Your task to perform on an android device: turn on translation in the chrome app Image 0: 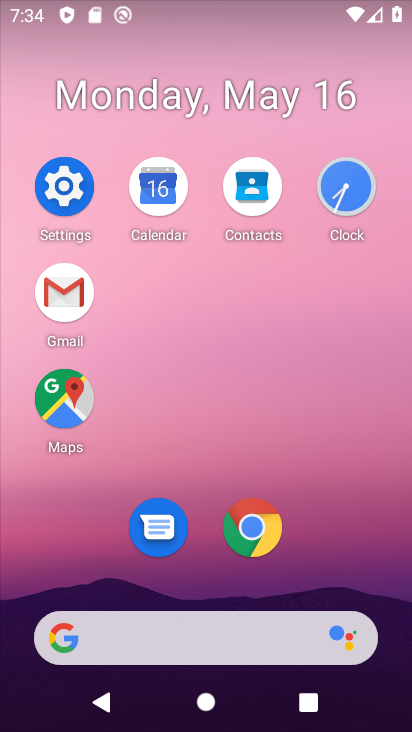
Step 0: click (244, 530)
Your task to perform on an android device: turn on translation in the chrome app Image 1: 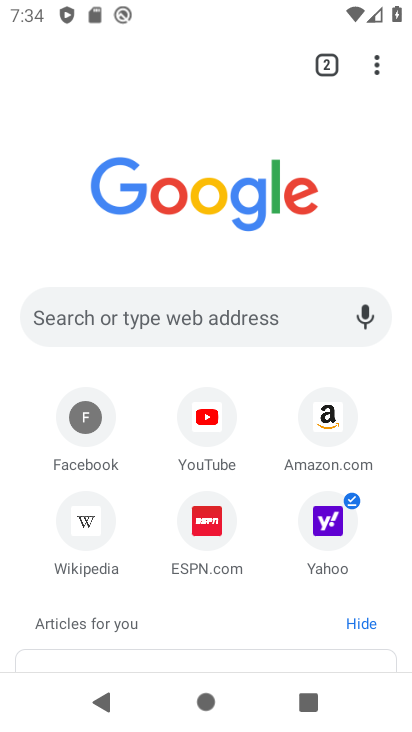
Step 1: click (380, 68)
Your task to perform on an android device: turn on translation in the chrome app Image 2: 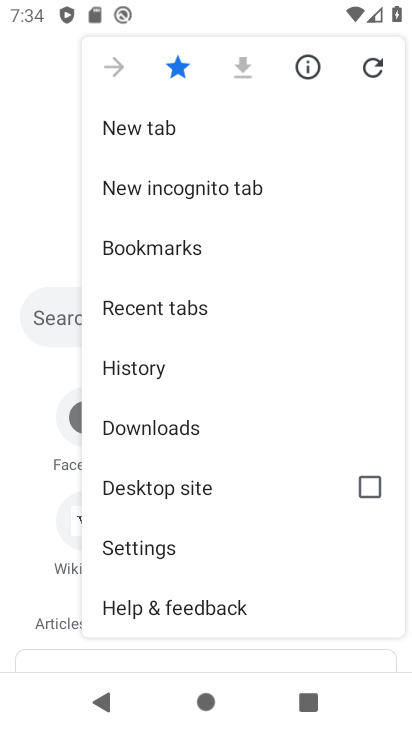
Step 2: drag from (310, 512) to (319, 142)
Your task to perform on an android device: turn on translation in the chrome app Image 3: 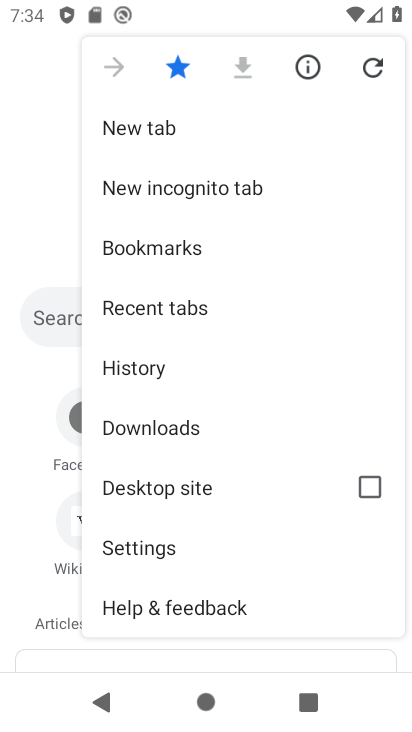
Step 3: click (188, 558)
Your task to perform on an android device: turn on translation in the chrome app Image 4: 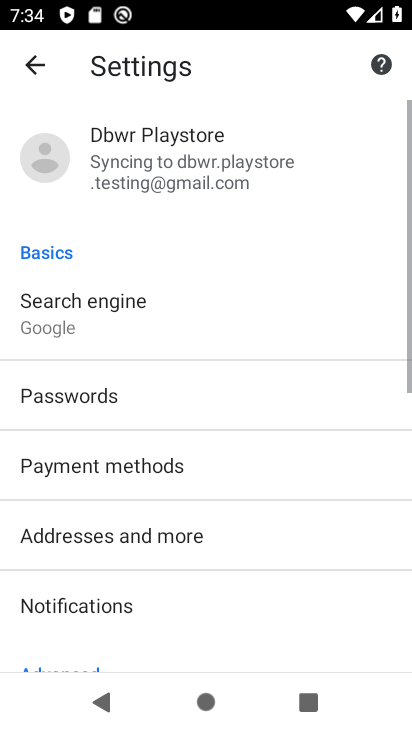
Step 4: drag from (188, 558) to (229, 173)
Your task to perform on an android device: turn on translation in the chrome app Image 5: 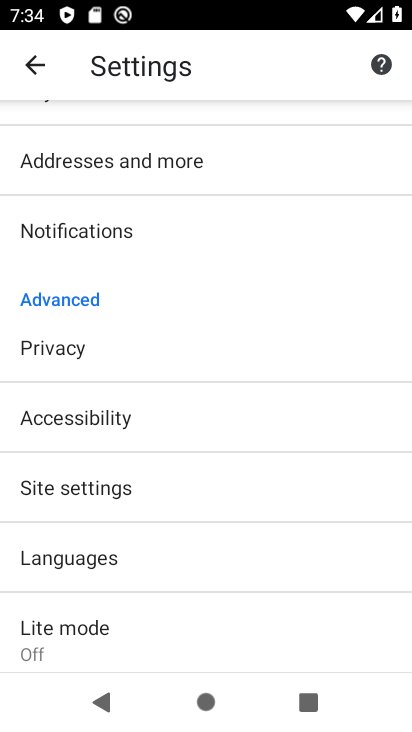
Step 5: click (140, 564)
Your task to perform on an android device: turn on translation in the chrome app Image 6: 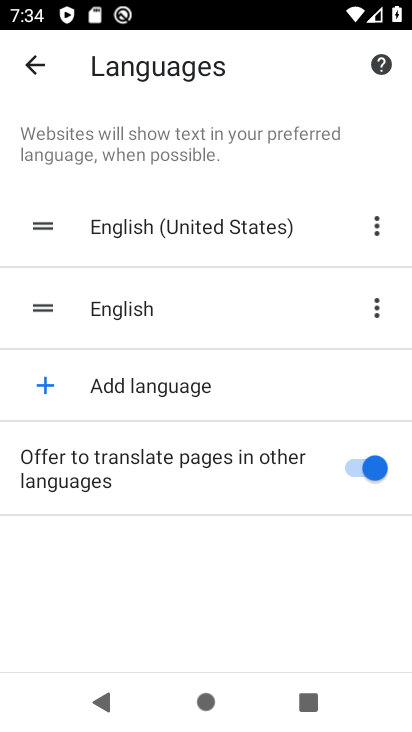
Step 6: task complete